Your task to perform on an android device: check data usage Image 0: 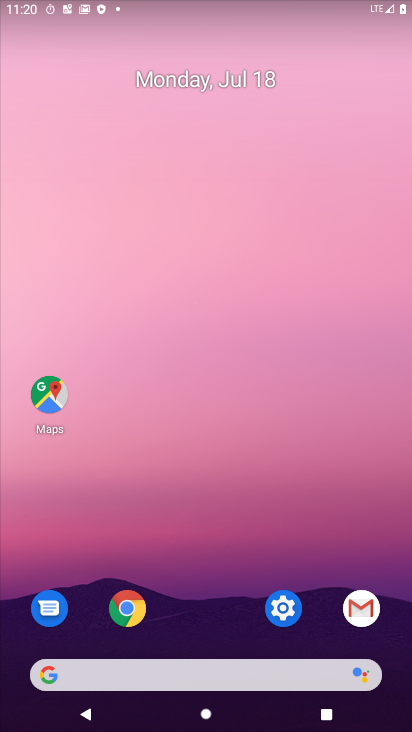
Step 0: click (279, 618)
Your task to perform on an android device: check data usage Image 1: 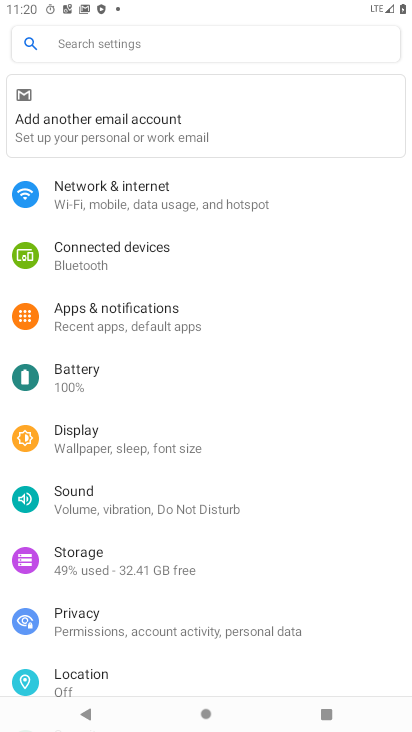
Step 1: click (170, 38)
Your task to perform on an android device: check data usage Image 2: 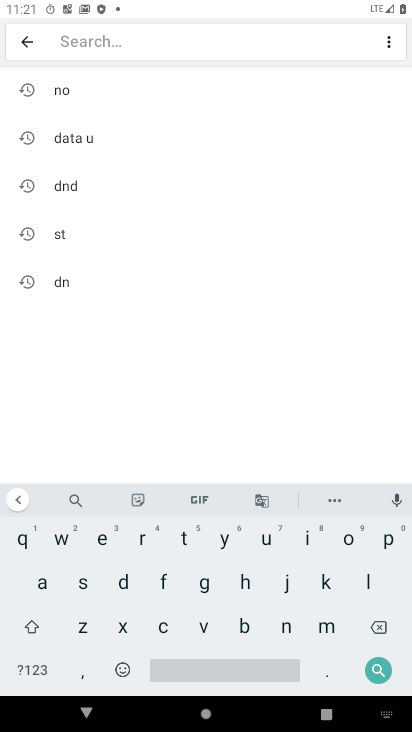
Step 2: click (114, 143)
Your task to perform on an android device: check data usage Image 3: 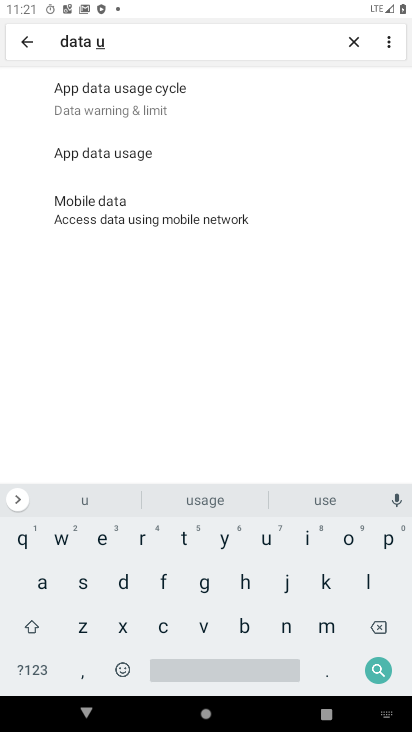
Step 3: click (111, 147)
Your task to perform on an android device: check data usage Image 4: 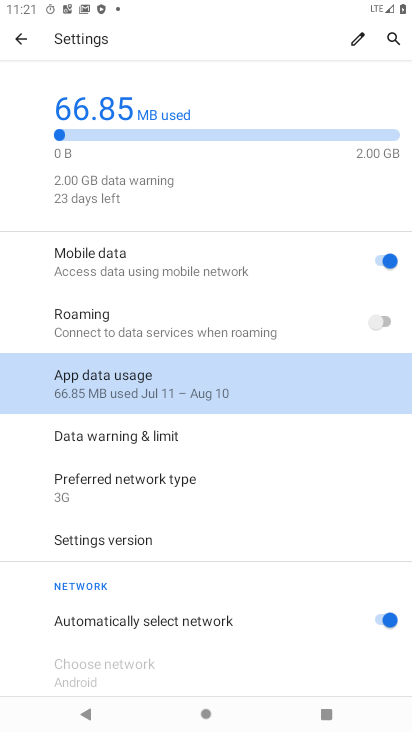
Step 4: click (170, 400)
Your task to perform on an android device: check data usage Image 5: 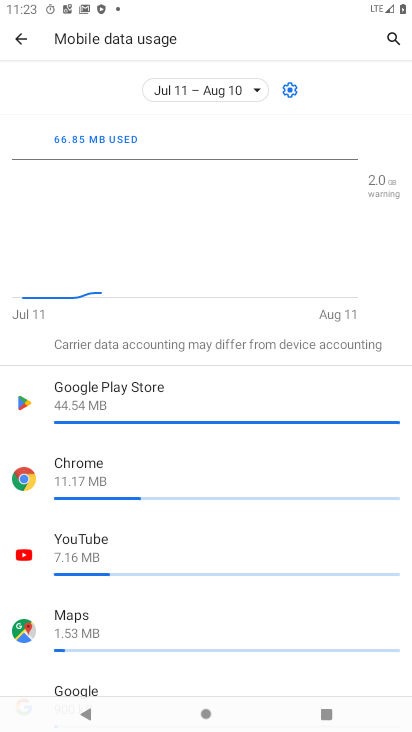
Step 5: task complete